Your task to perform on an android device: all mails in gmail Image 0: 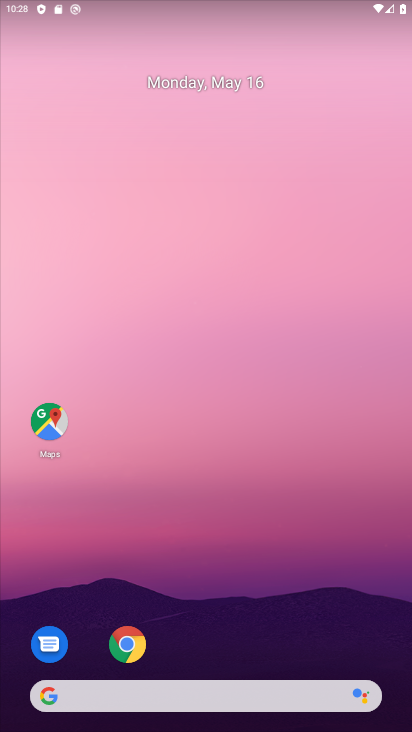
Step 0: drag from (25, 593) to (198, 193)
Your task to perform on an android device: all mails in gmail Image 1: 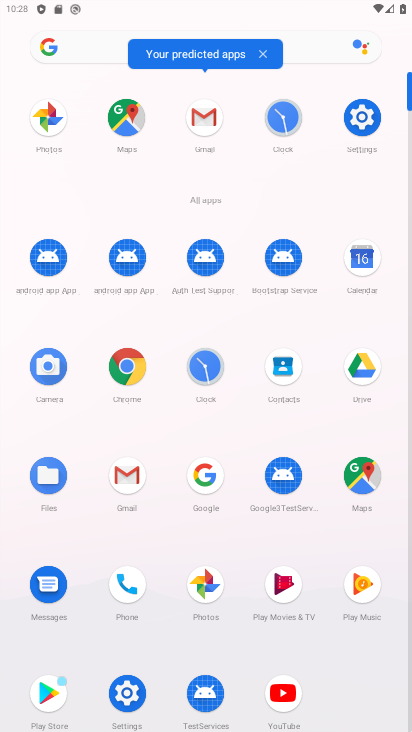
Step 1: click (126, 479)
Your task to perform on an android device: all mails in gmail Image 2: 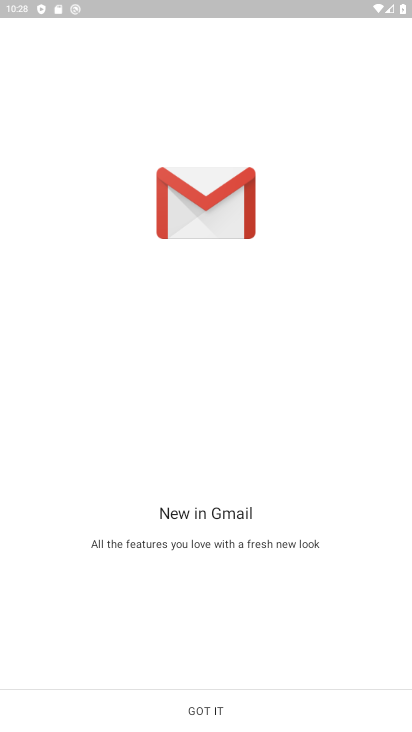
Step 2: click (174, 710)
Your task to perform on an android device: all mails in gmail Image 3: 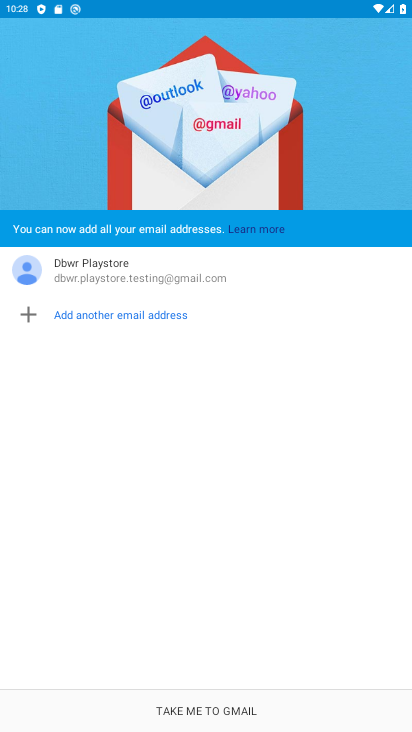
Step 3: click (175, 710)
Your task to perform on an android device: all mails in gmail Image 4: 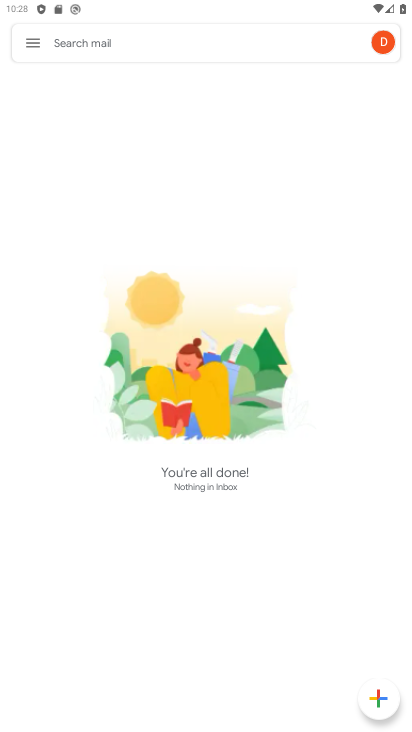
Step 4: click (29, 45)
Your task to perform on an android device: all mails in gmail Image 5: 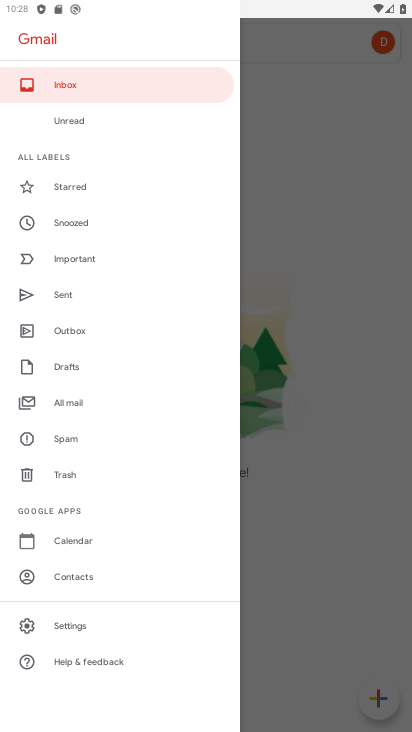
Step 5: click (75, 394)
Your task to perform on an android device: all mails in gmail Image 6: 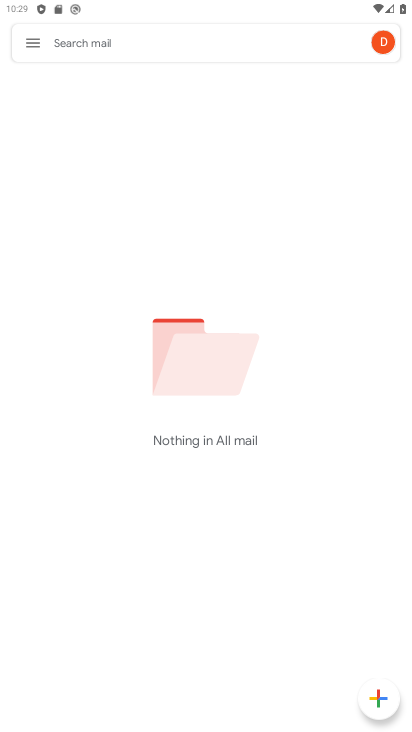
Step 6: task complete